Your task to perform on an android device: open wifi settings Image 0: 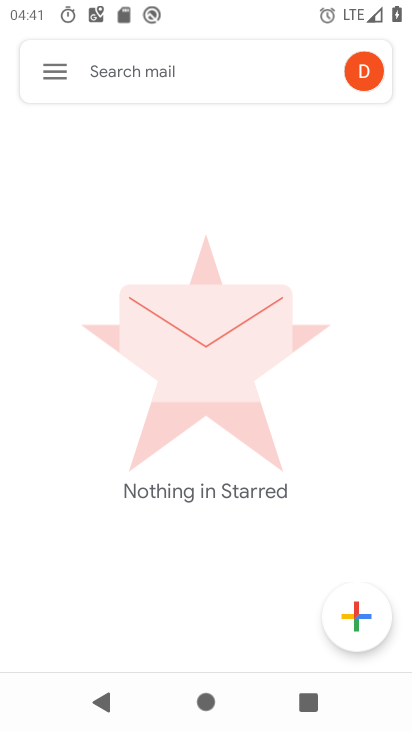
Step 0: drag from (146, 14) to (166, 606)
Your task to perform on an android device: open wifi settings Image 1: 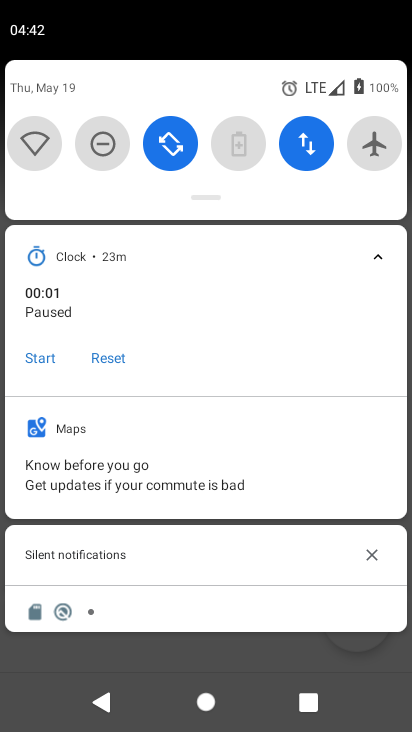
Step 1: click (26, 149)
Your task to perform on an android device: open wifi settings Image 2: 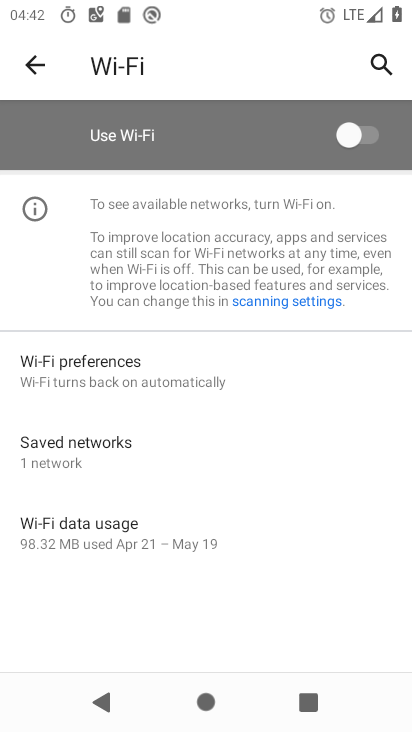
Step 2: task complete